Your task to perform on an android device: Open Wikipedia Image 0: 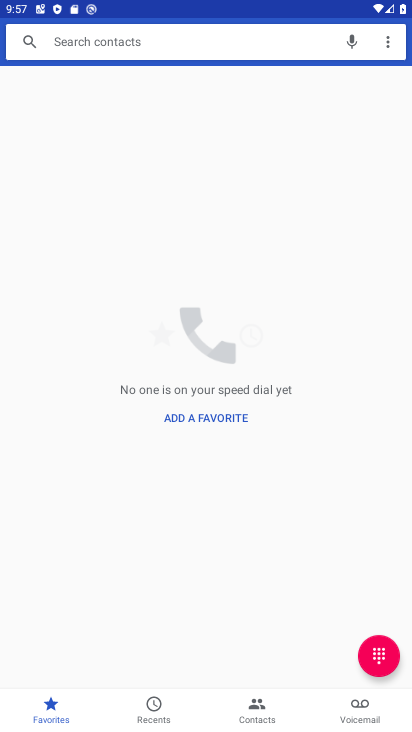
Step 0: press home button
Your task to perform on an android device: Open Wikipedia Image 1: 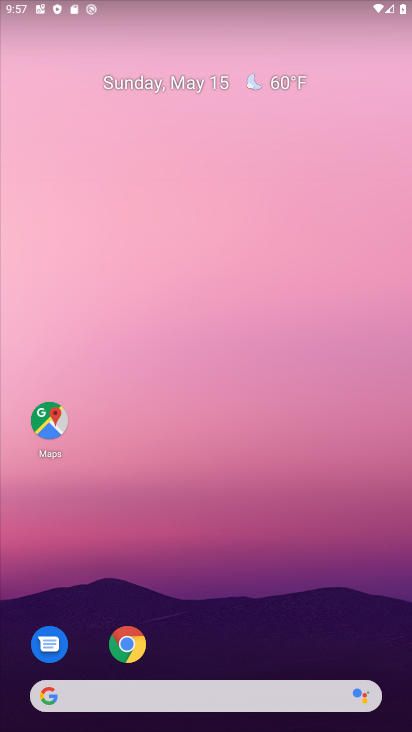
Step 1: click (134, 649)
Your task to perform on an android device: Open Wikipedia Image 2: 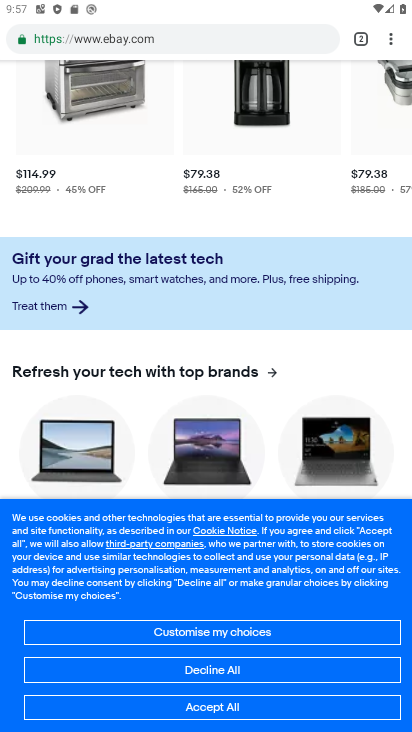
Step 2: click (361, 38)
Your task to perform on an android device: Open Wikipedia Image 3: 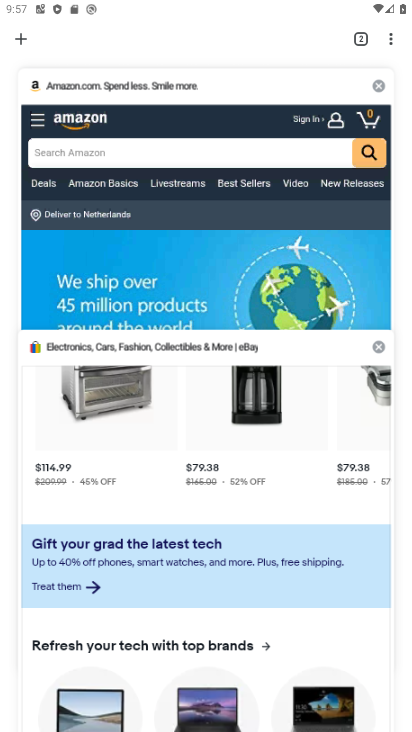
Step 3: click (15, 47)
Your task to perform on an android device: Open Wikipedia Image 4: 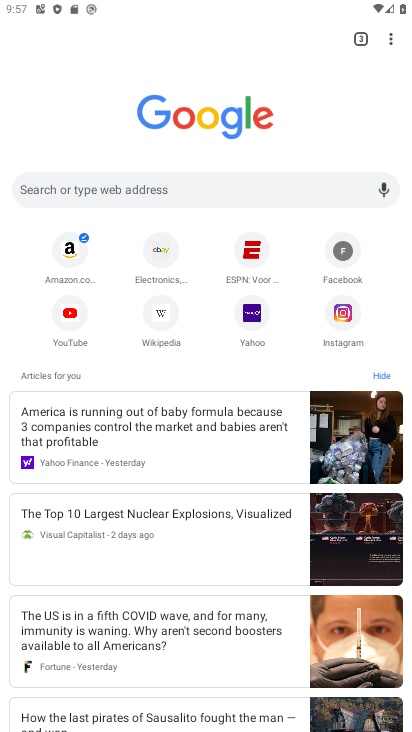
Step 4: click (169, 321)
Your task to perform on an android device: Open Wikipedia Image 5: 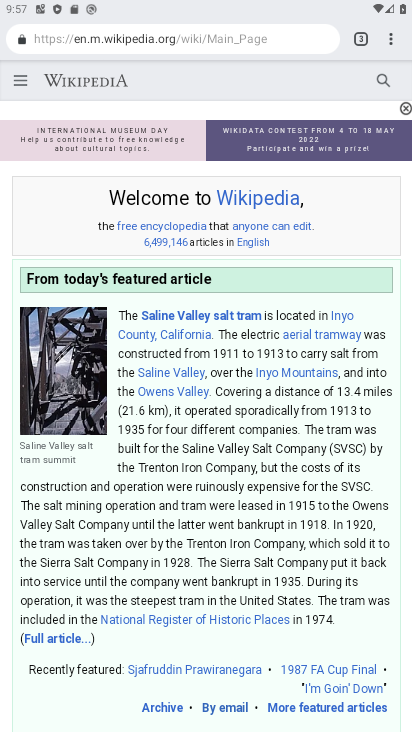
Step 5: task complete